Your task to perform on an android device: Go to settings Image 0: 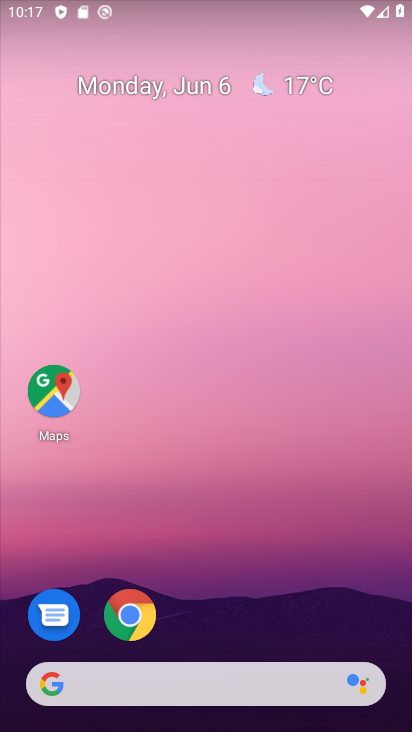
Step 0: drag from (292, 595) to (196, 80)
Your task to perform on an android device: Go to settings Image 1: 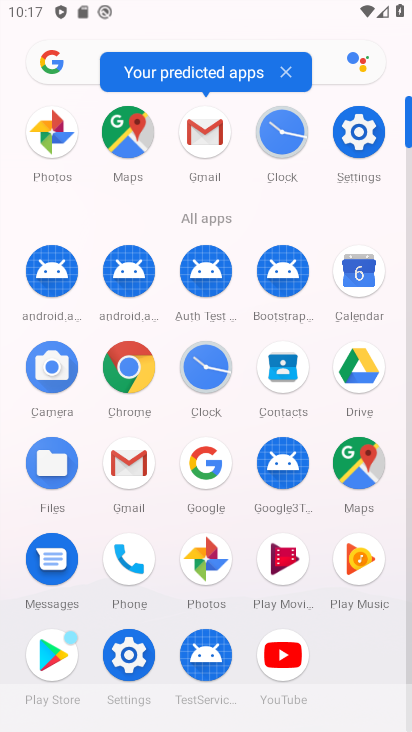
Step 1: click (370, 134)
Your task to perform on an android device: Go to settings Image 2: 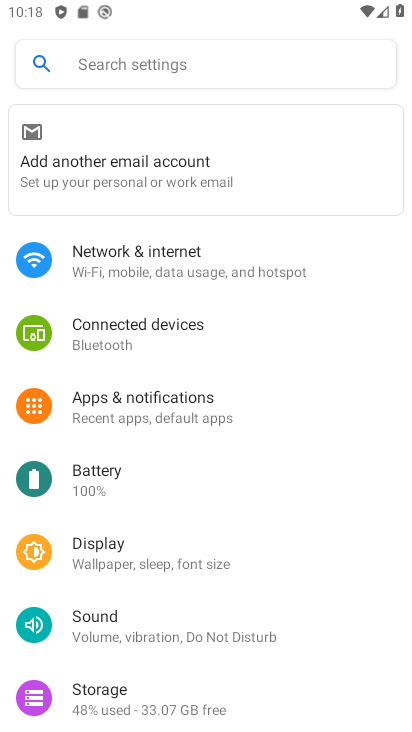
Step 2: task complete